Your task to perform on an android device: Open maps Image 0: 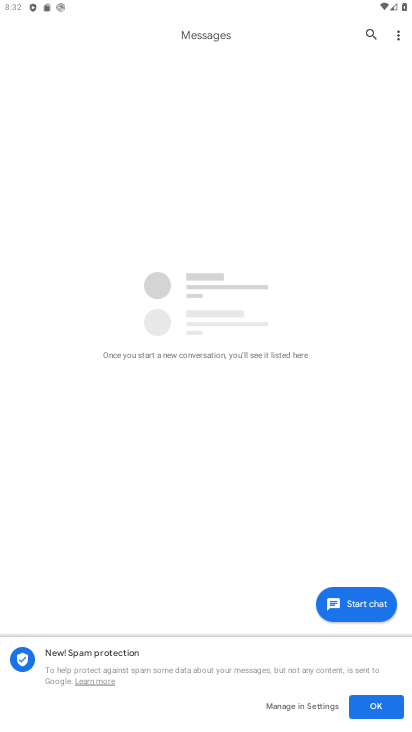
Step 0: press home button
Your task to perform on an android device: Open maps Image 1: 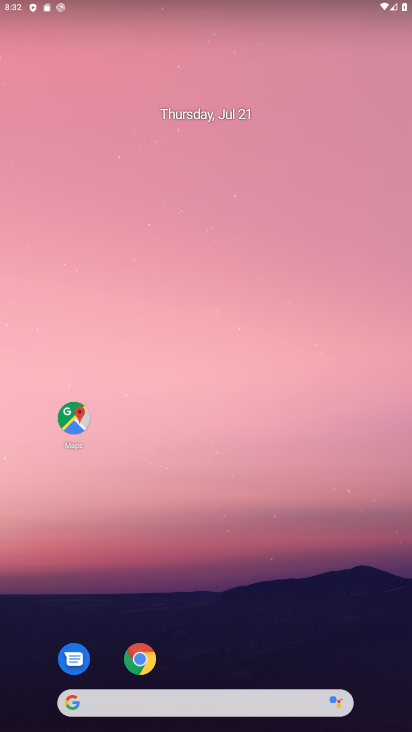
Step 1: drag from (241, 646) to (209, 134)
Your task to perform on an android device: Open maps Image 2: 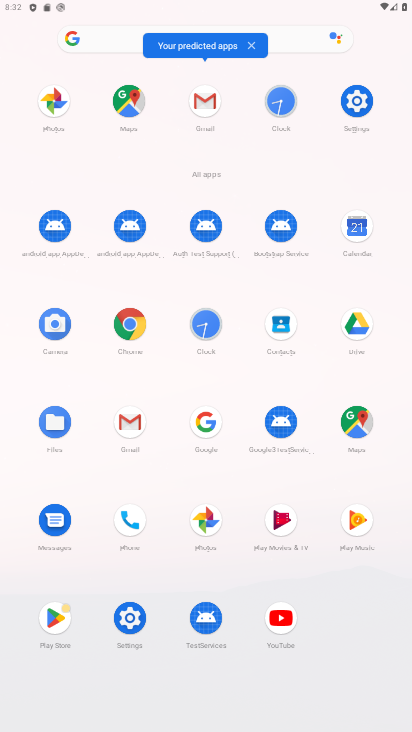
Step 2: click (130, 113)
Your task to perform on an android device: Open maps Image 3: 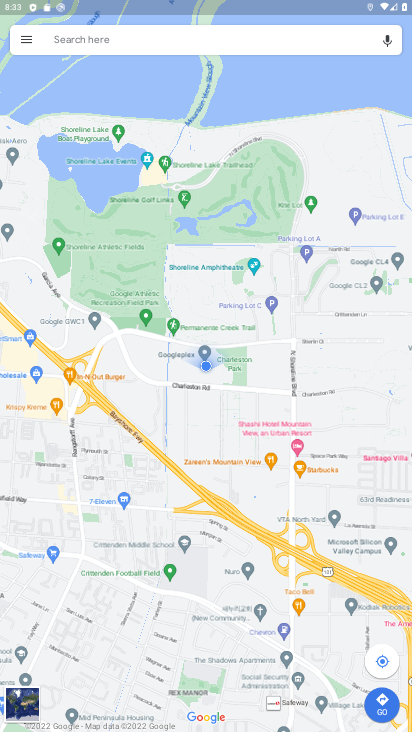
Step 3: task complete